Your task to perform on an android device: open app "Walmart Shopping & Grocery" Image 0: 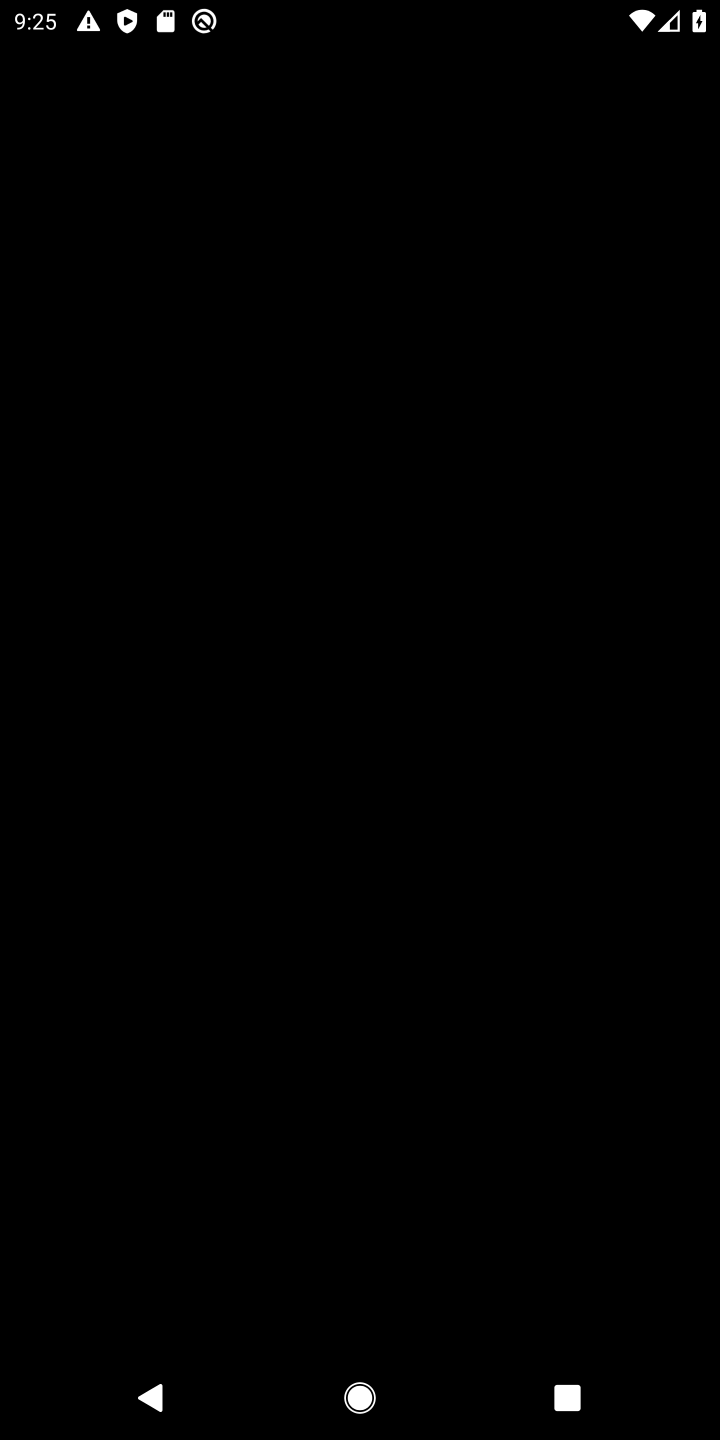
Step 0: press home button
Your task to perform on an android device: open app "Walmart Shopping & Grocery" Image 1: 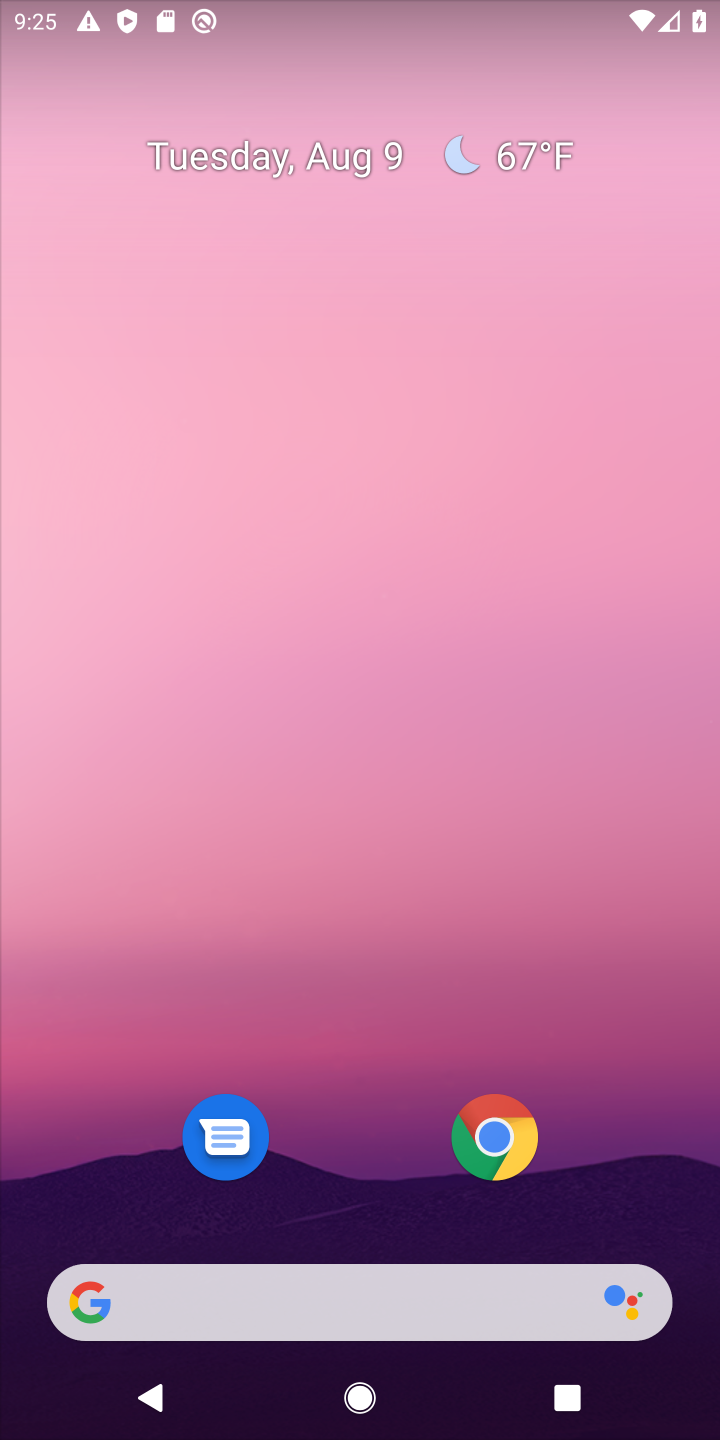
Step 1: drag from (641, 1134) to (86, 591)
Your task to perform on an android device: open app "Walmart Shopping & Grocery" Image 2: 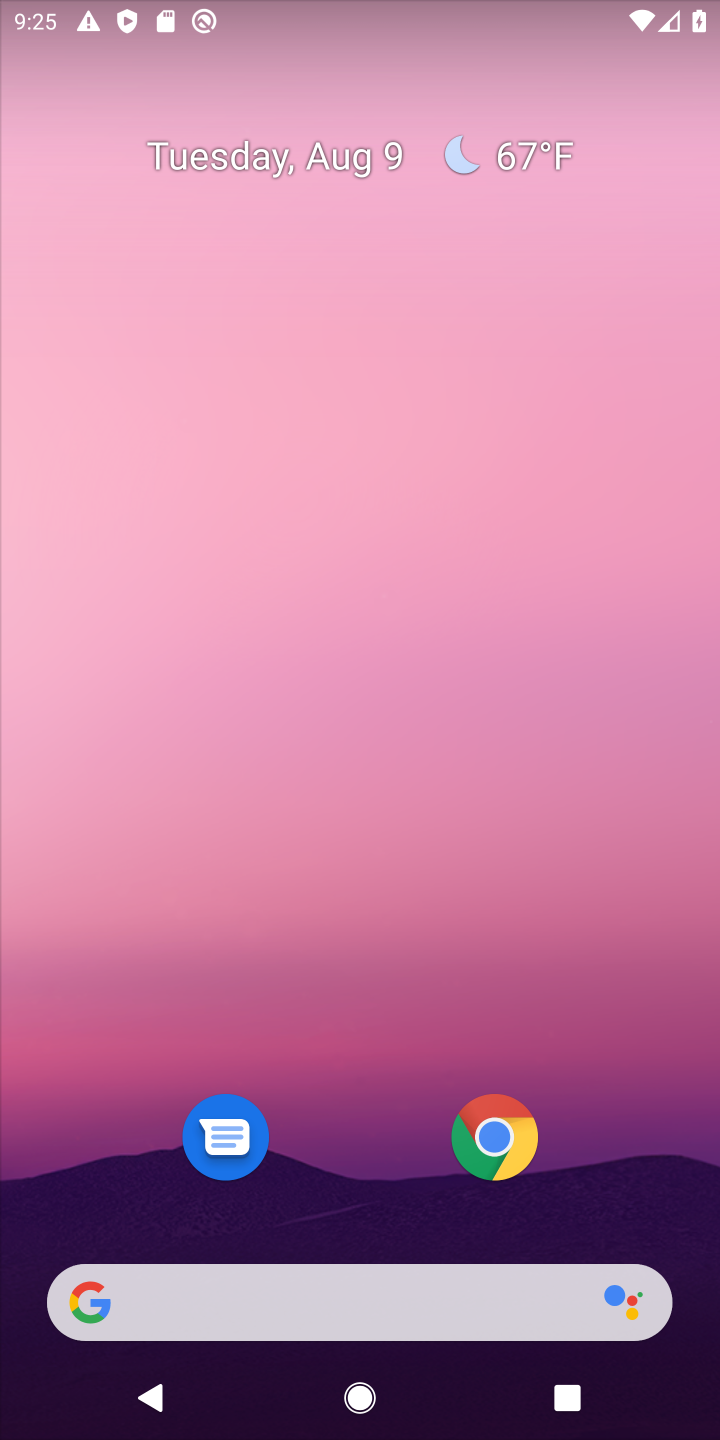
Step 2: drag from (686, 1061) to (368, 1)
Your task to perform on an android device: open app "Walmart Shopping & Grocery" Image 3: 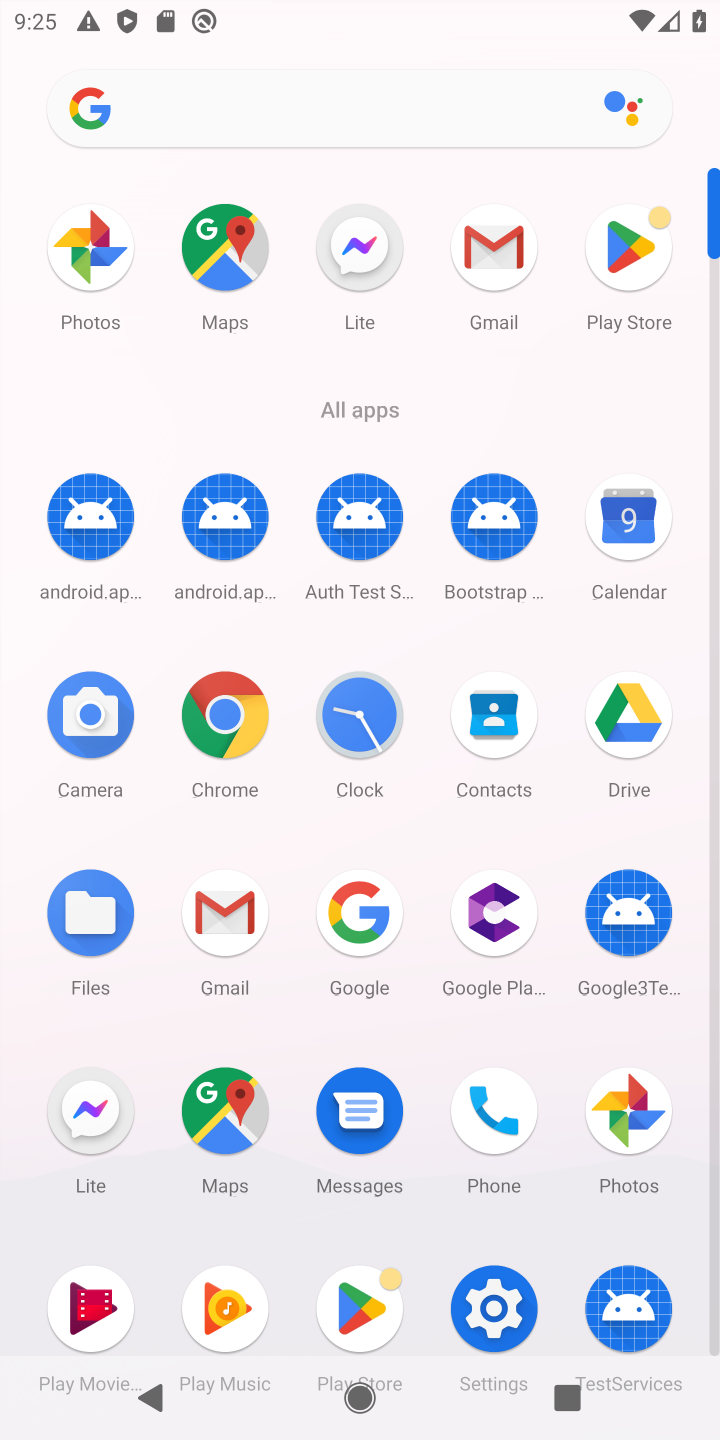
Step 3: click (373, 1306)
Your task to perform on an android device: open app "Walmart Shopping & Grocery" Image 4: 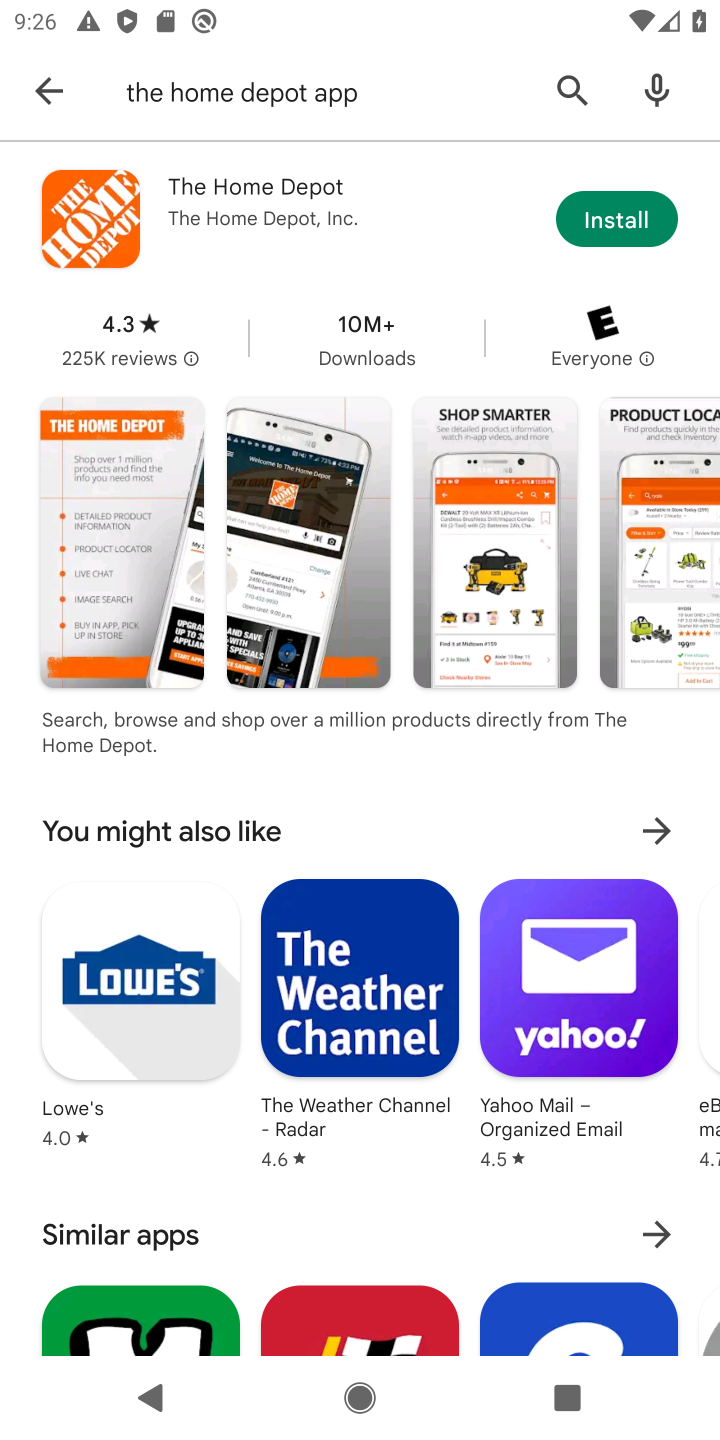
Step 4: press back button
Your task to perform on an android device: open app "Walmart Shopping & Grocery" Image 5: 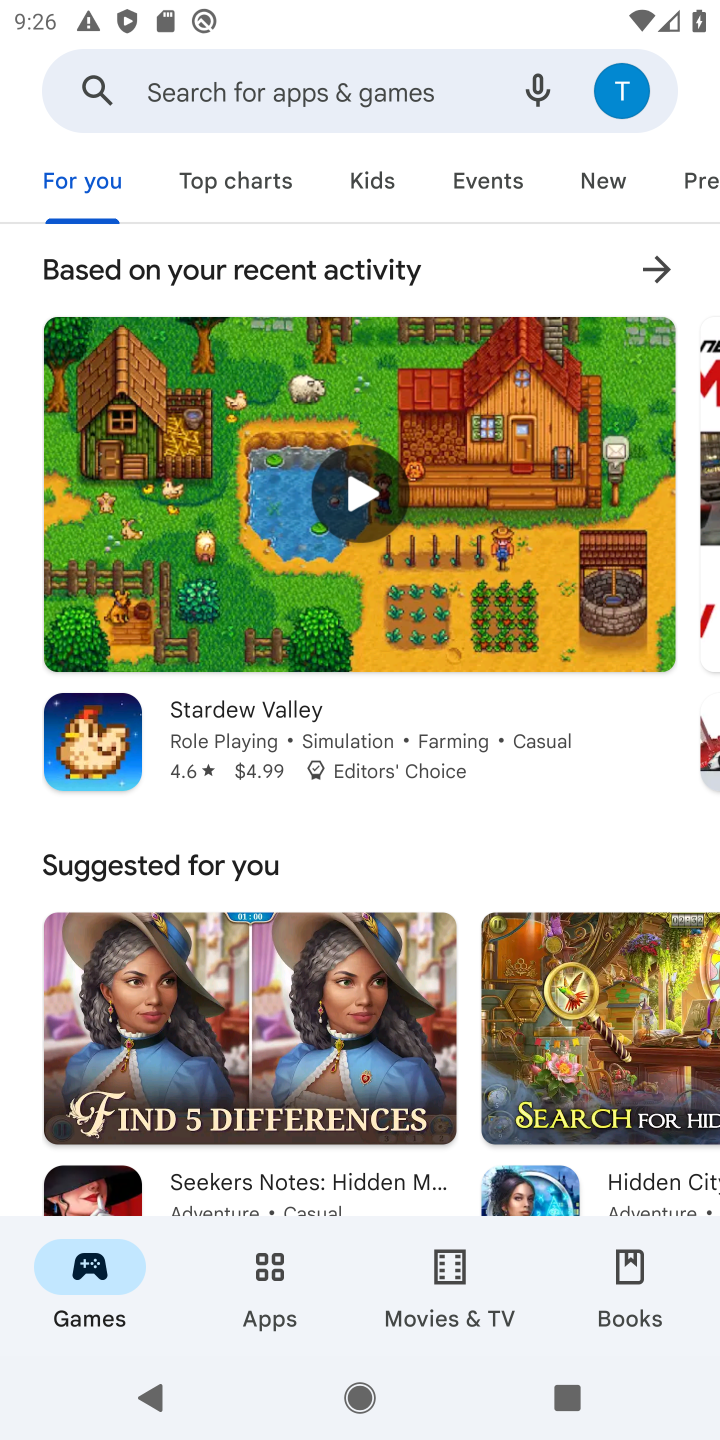
Step 5: click (234, 96)
Your task to perform on an android device: open app "Walmart Shopping & Grocery" Image 6: 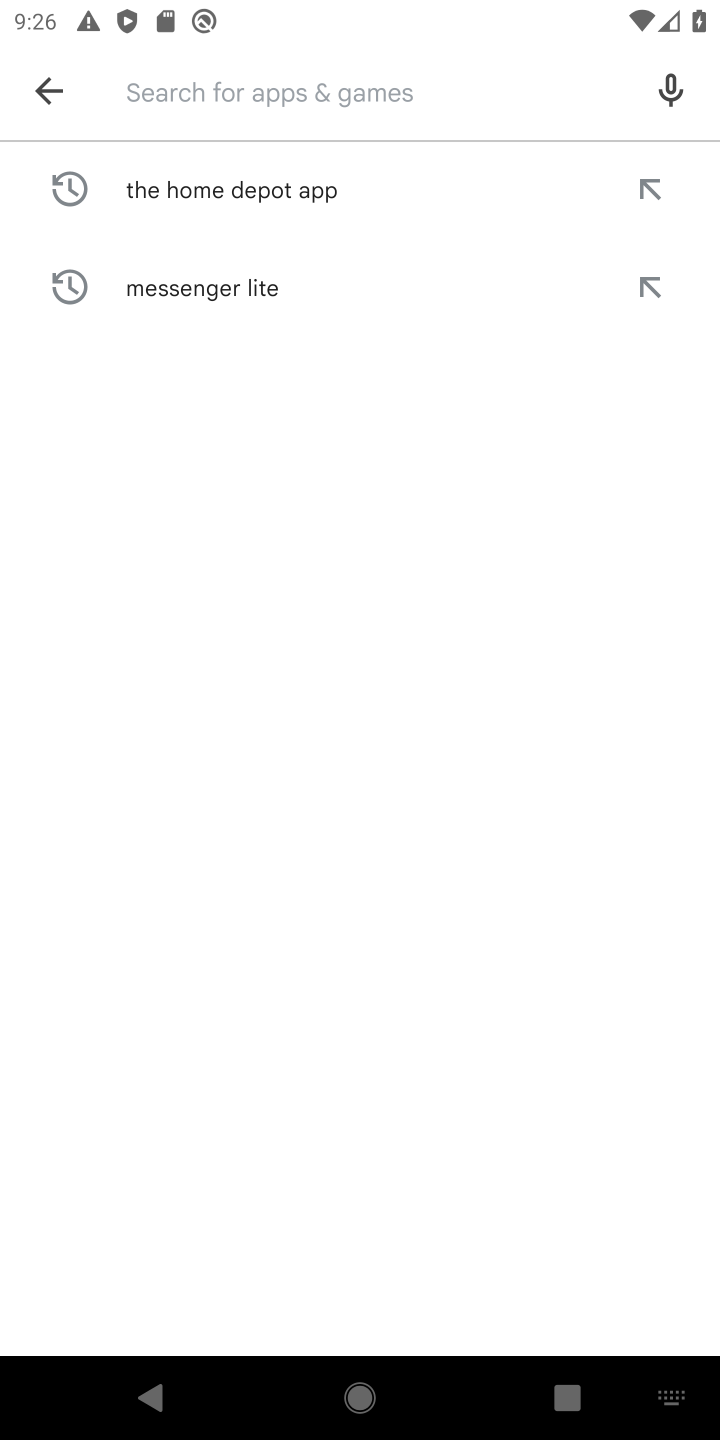
Step 6: type "Walmart Shopping & Grocery"
Your task to perform on an android device: open app "Walmart Shopping & Grocery" Image 7: 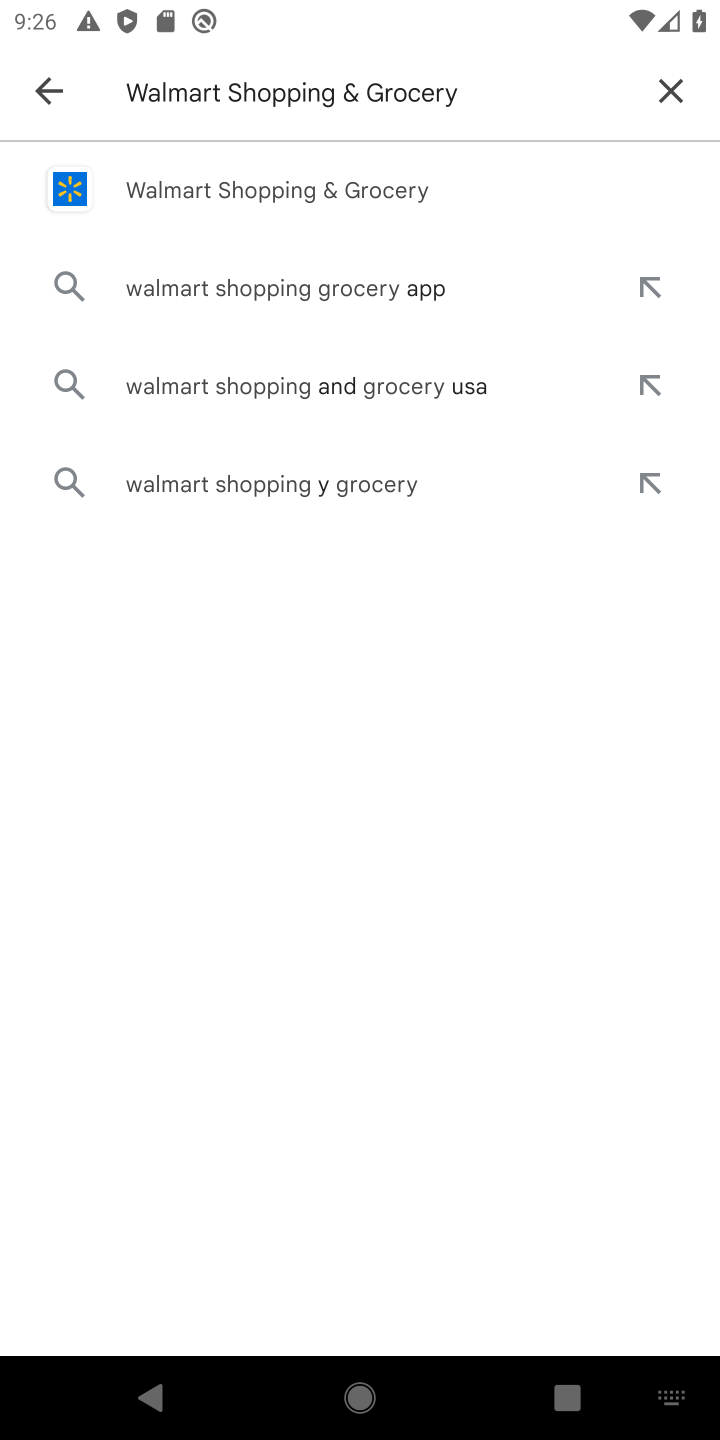
Step 7: click (324, 194)
Your task to perform on an android device: open app "Walmart Shopping & Grocery" Image 8: 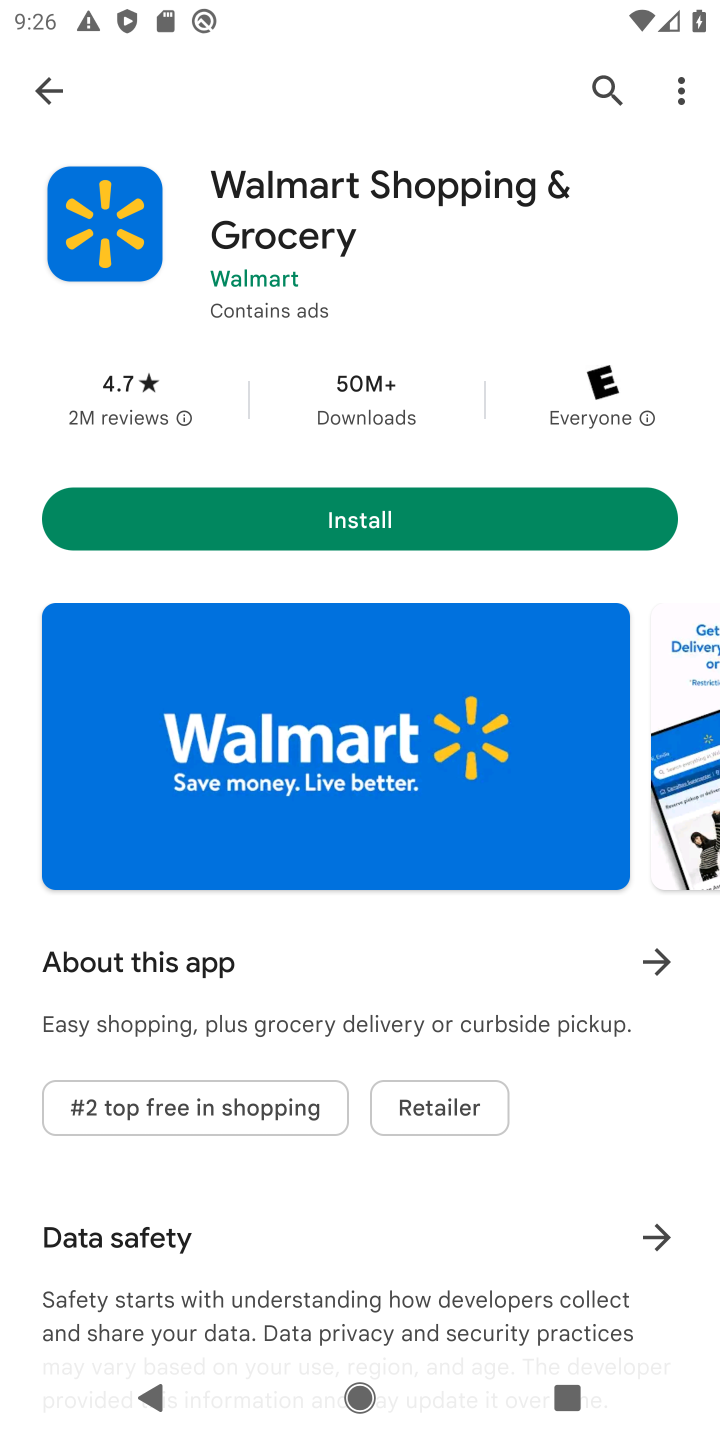
Step 8: press home button
Your task to perform on an android device: open app "Walmart Shopping & Grocery" Image 9: 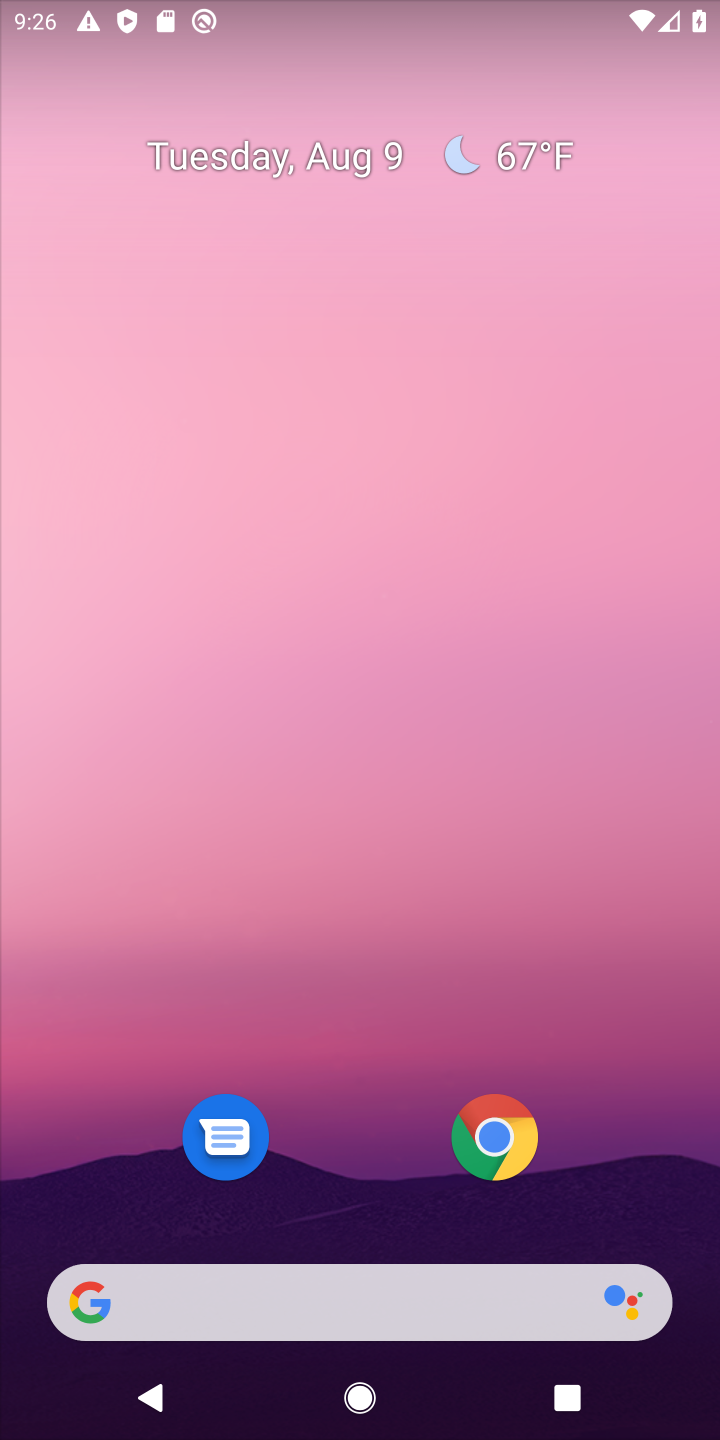
Step 9: drag from (641, 933) to (346, 52)
Your task to perform on an android device: open app "Walmart Shopping & Grocery" Image 10: 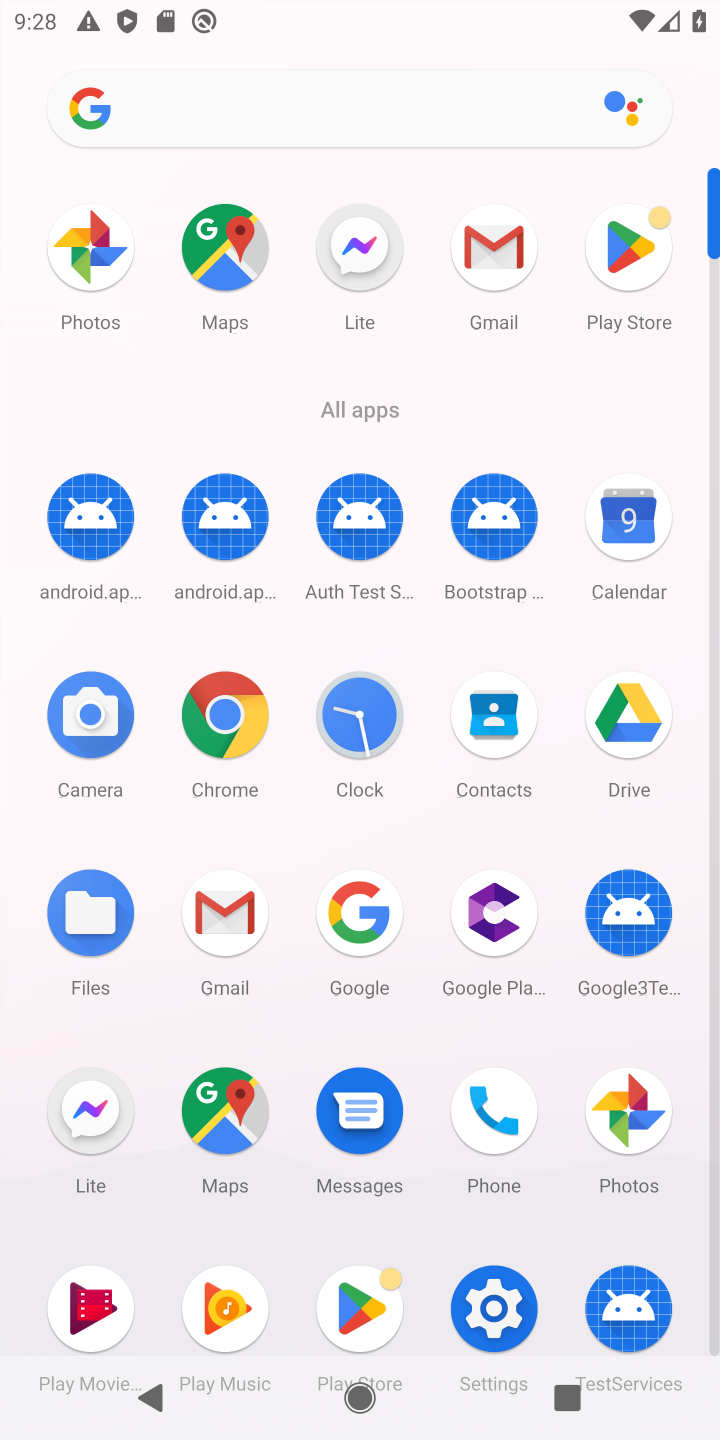
Step 10: click (615, 250)
Your task to perform on an android device: open app "Walmart Shopping & Grocery" Image 11: 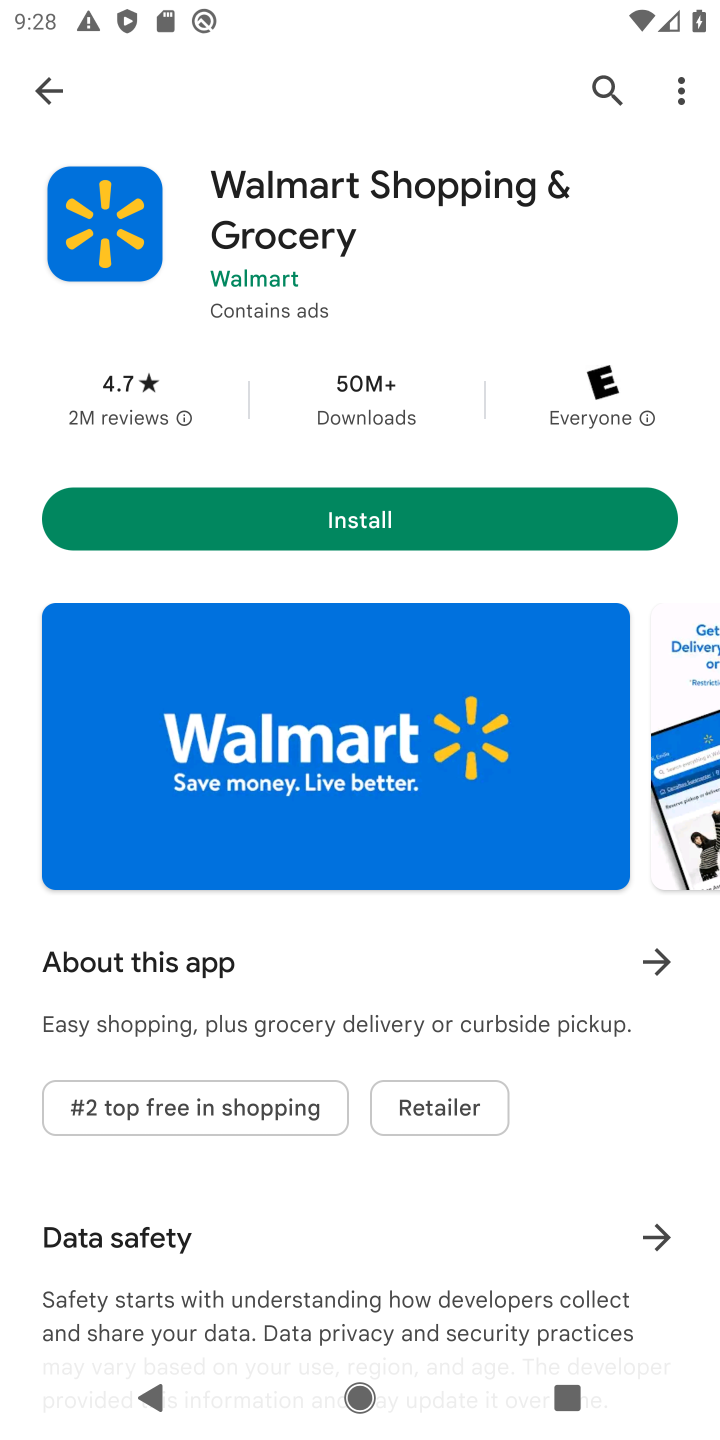
Step 11: task complete